Your task to perform on an android device: What's the top post on reddit right now? Image 0: 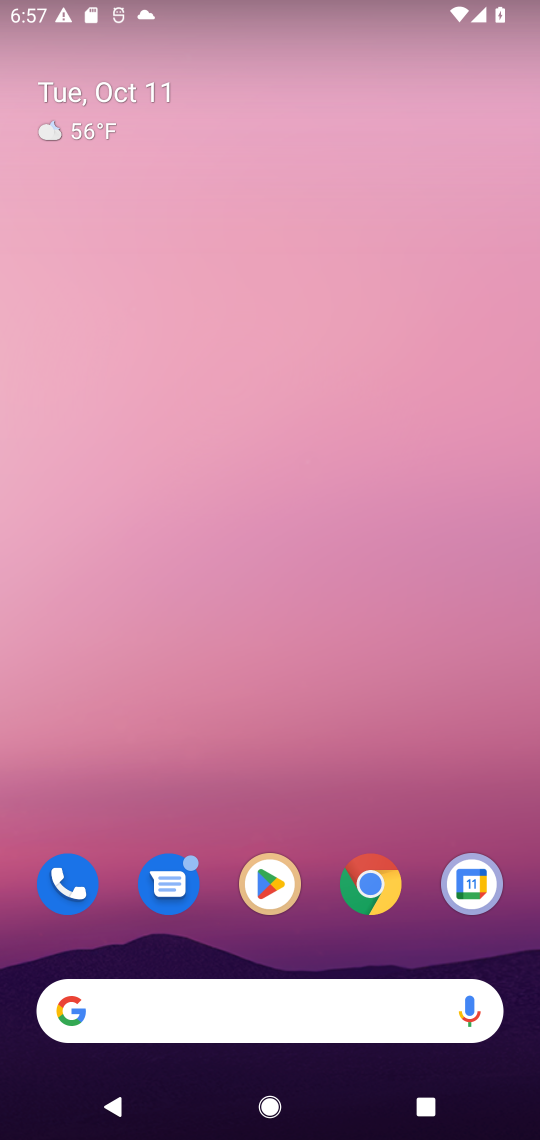
Step 0: drag from (301, 979) to (261, 88)
Your task to perform on an android device: What's the top post on reddit right now? Image 1: 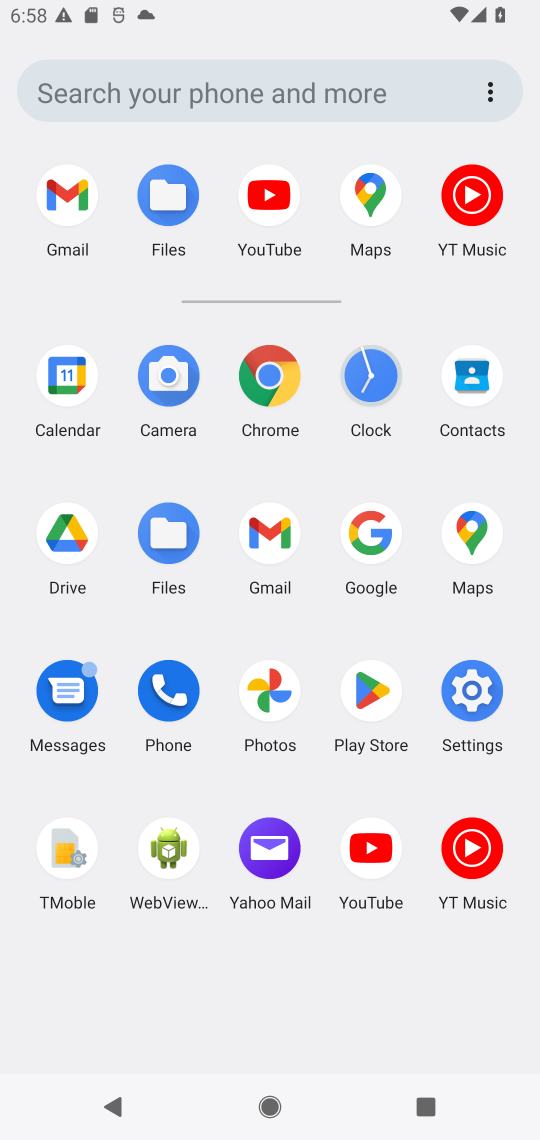
Step 1: click (280, 371)
Your task to perform on an android device: What's the top post on reddit right now? Image 2: 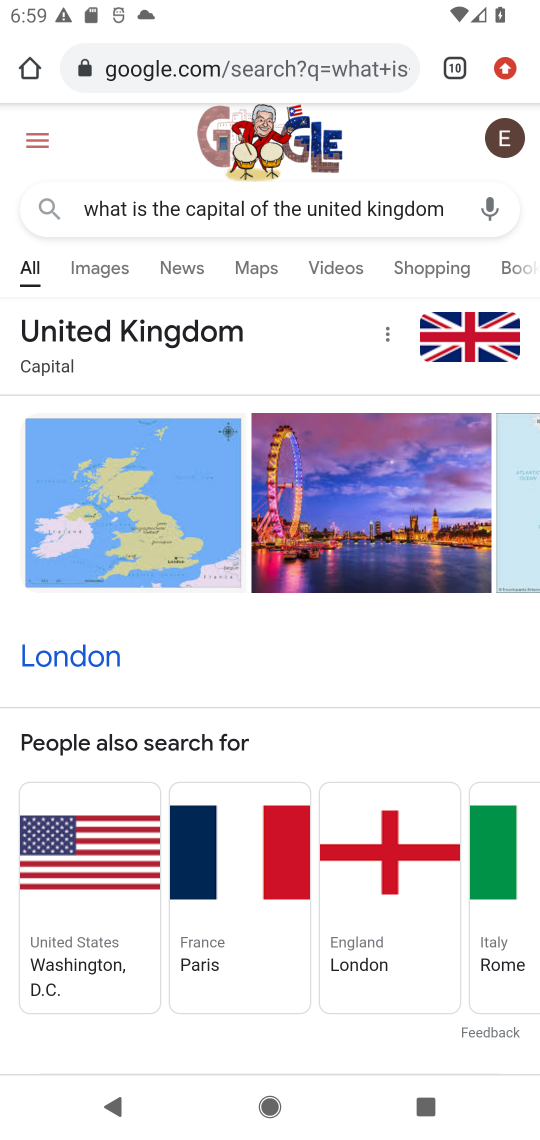
Step 2: click (373, 205)
Your task to perform on an android device: What's the top post on reddit right now? Image 3: 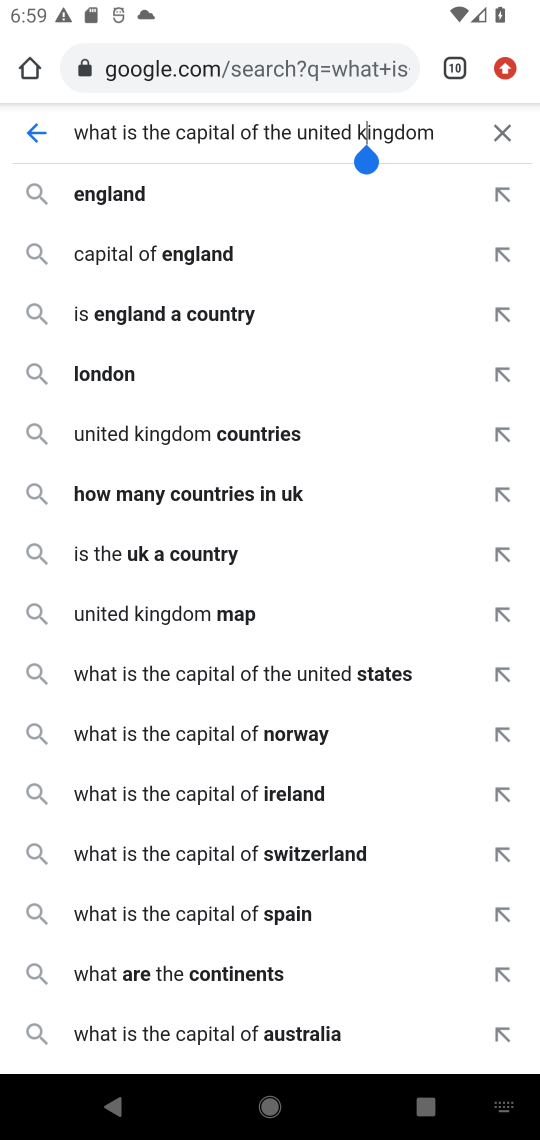
Step 3: click (507, 130)
Your task to perform on an android device: What's the top post on reddit right now? Image 4: 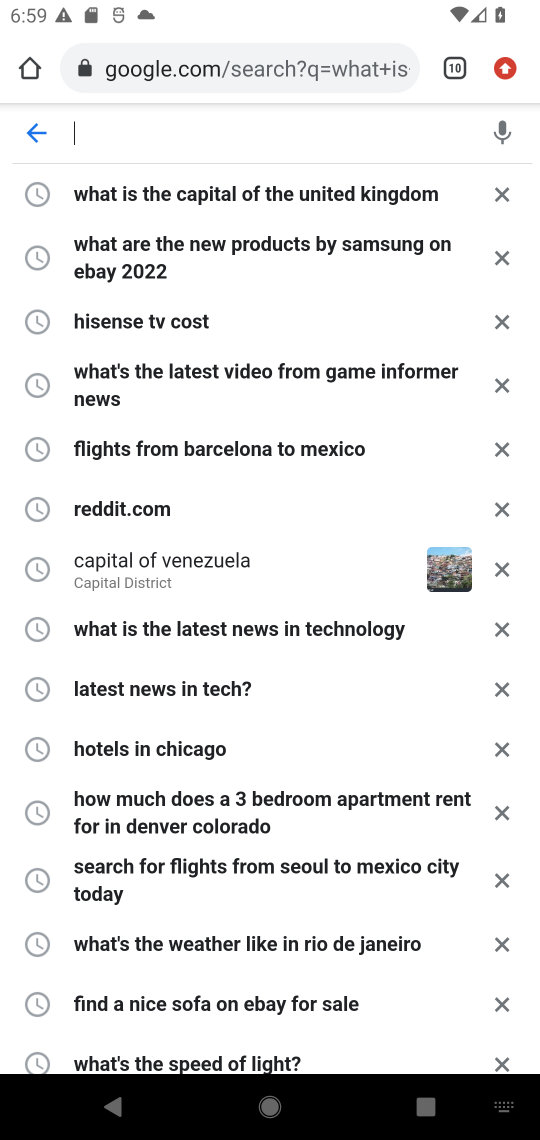
Step 4: type "What's the top post on reddit right now?"
Your task to perform on an android device: What's the top post on reddit right now? Image 5: 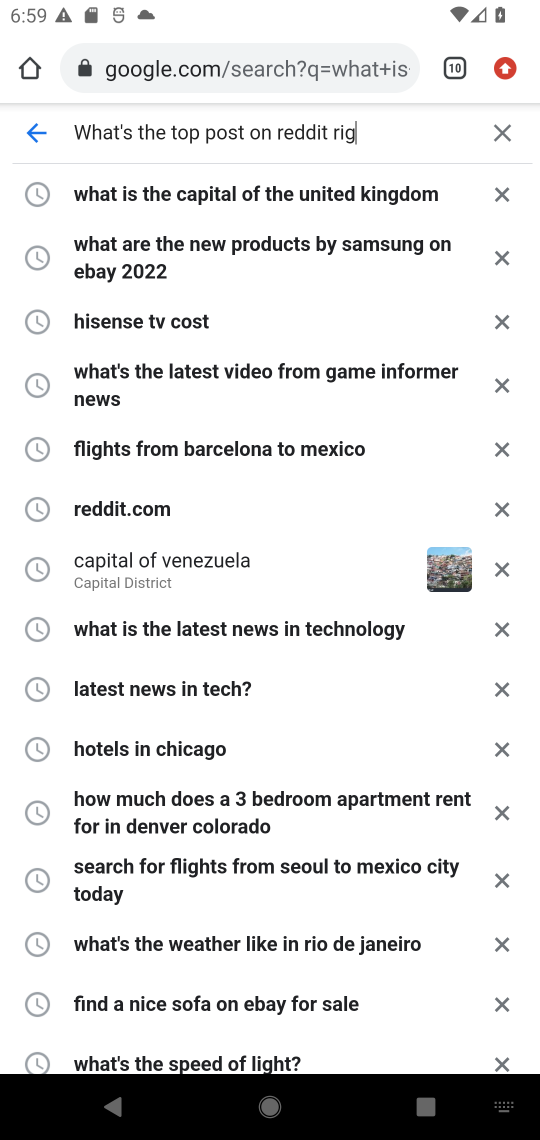
Step 5: type ""
Your task to perform on an android device: What's the top post on reddit right now? Image 6: 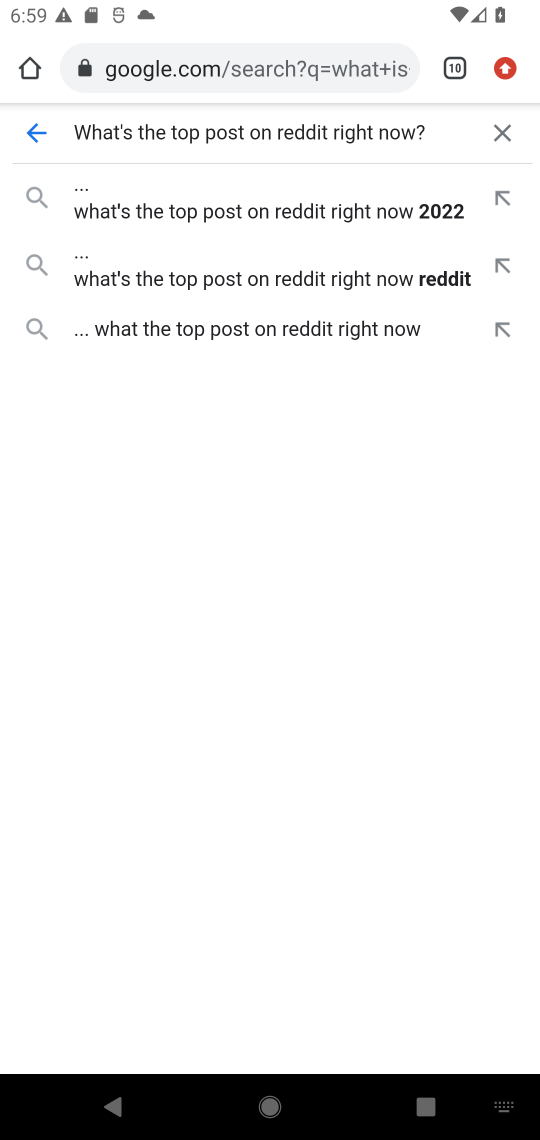
Step 6: click (234, 215)
Your task to perform on an android device: What's the top post on reddit right now? Image 7: 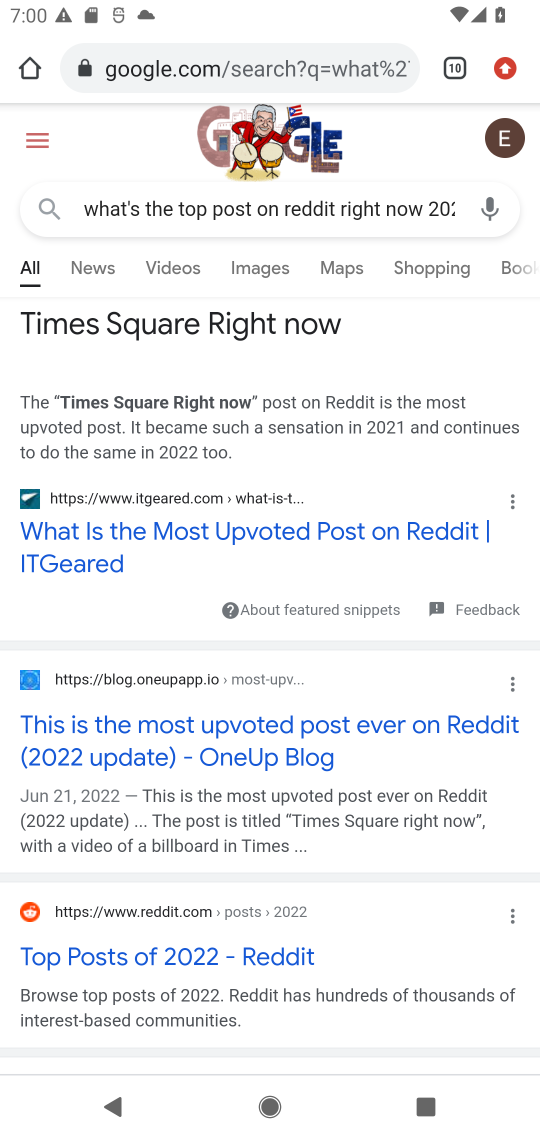
Step 7: task complete